Your task to perform on an android device: see creations saved in the google photos Image 0: 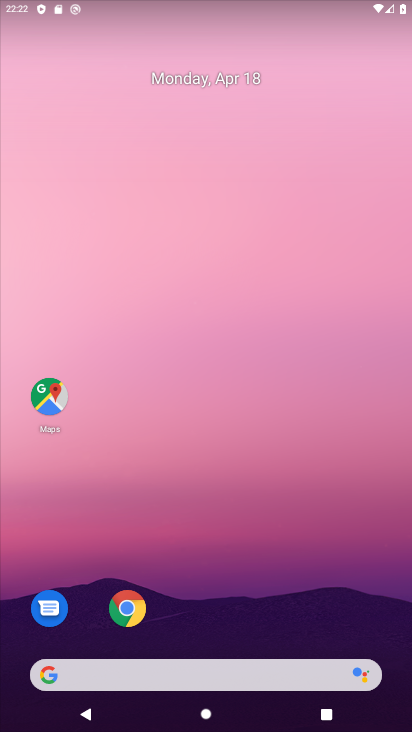
Step 0: drag from (237, 538) to (220, 44)
Your task to perform on an android device: see creations saved in the google photos Image 1: 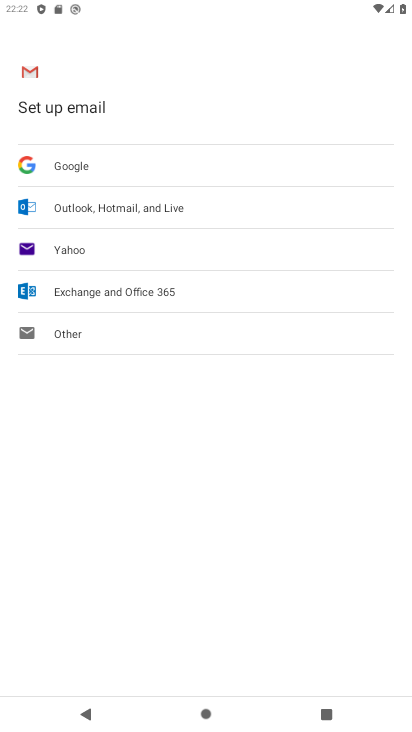
Step 1: press home button
Your task to perform on an android device: see creations saved in the google photos Image 2: 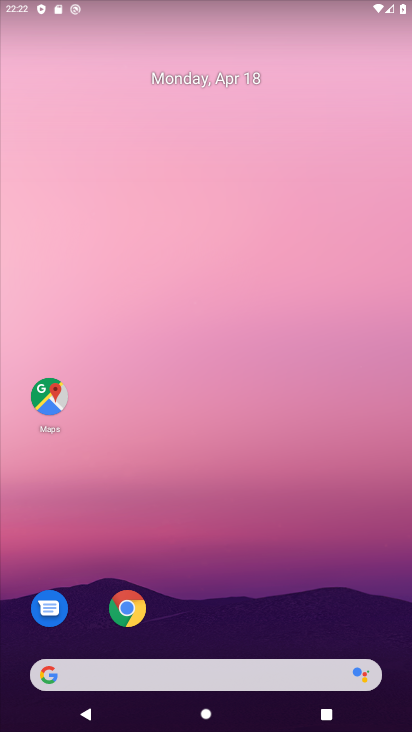
Step 2: drag from (246, 607) to (250, 260)
Your task to perform on an android device: see creations saved in the google photos Image 3: 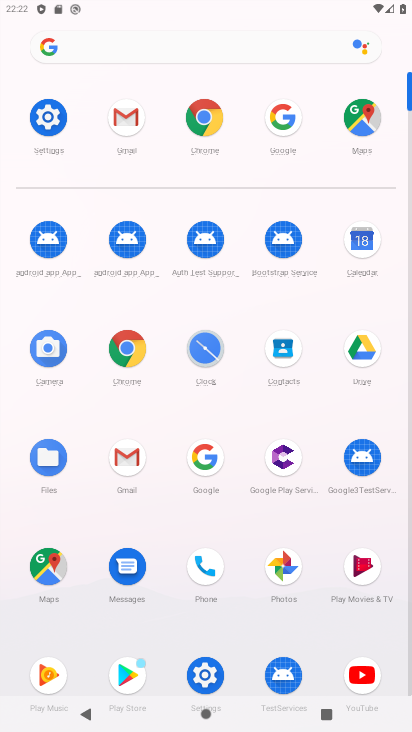
Step 3: click (286, 567)
Your task to perform on an android device: see creations saved in the google photos Image 4: 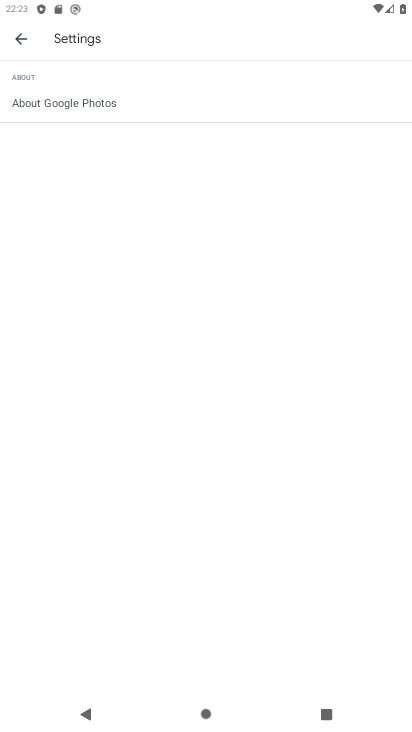
Step 4: press back button
Your task to perform on an android device: see creations saved in the google photos Image 5: 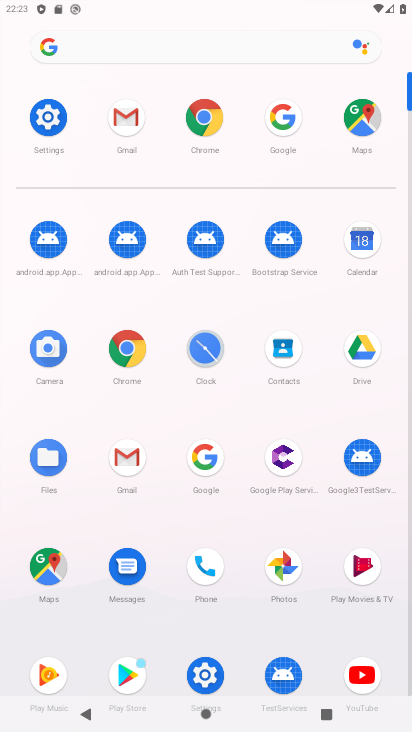
Step 5: click (277, 560)
Your task to perform on an android device: see creations saved in the google photos Image 6: 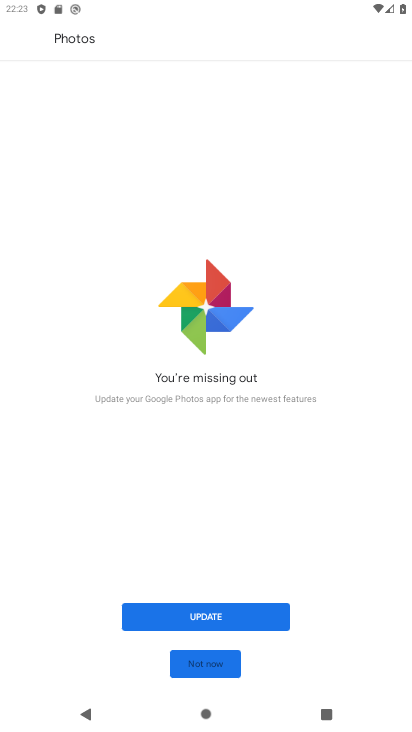
Step 6: click (201, 661)
Your task to perform on an android device: see creations saved in the google photos Image 7: 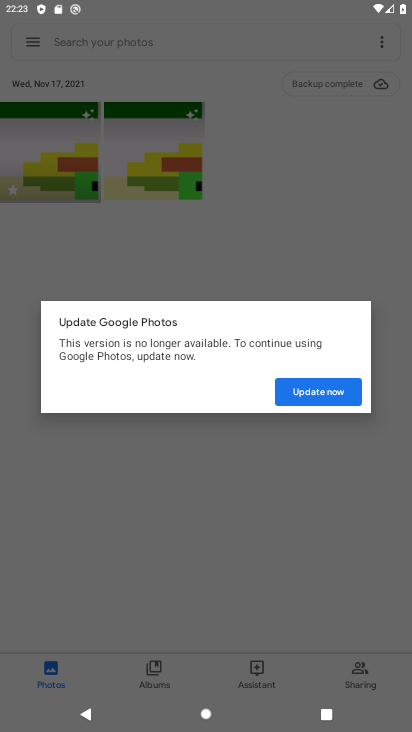
Step 7: click (300, 393)
Your task to perform on an android device: see creations saved in the google photos Image 8: 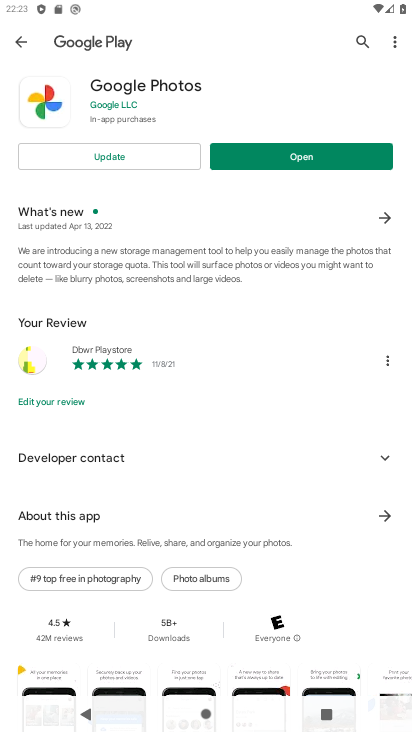
Step 8: click (223, 160)
Your task to perform on an android device: see creations saved in the google photos Image 9: 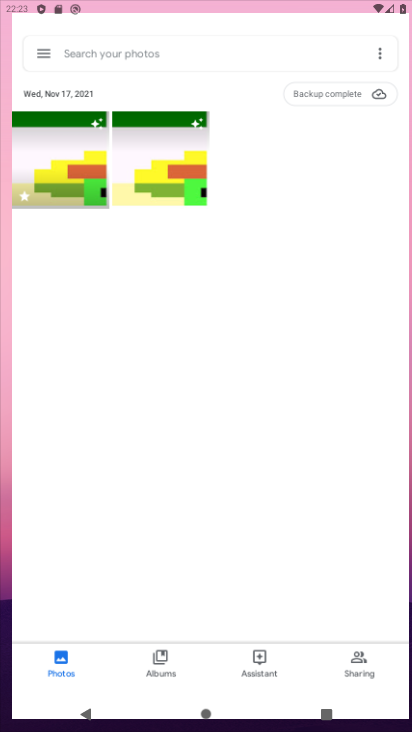
Step 9: click (289, 157)
Your task to perform on an android device: see creations saved in the google photos Image 10: 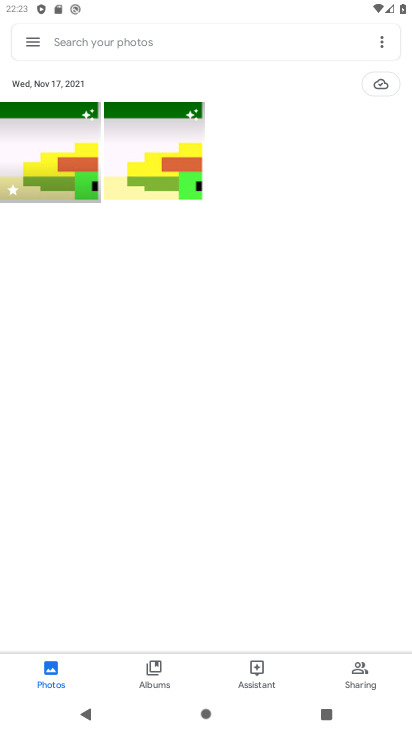
Step 10: click (180, 38)
Your task to perform on an android device: see creations saved in the google photos Image 11: 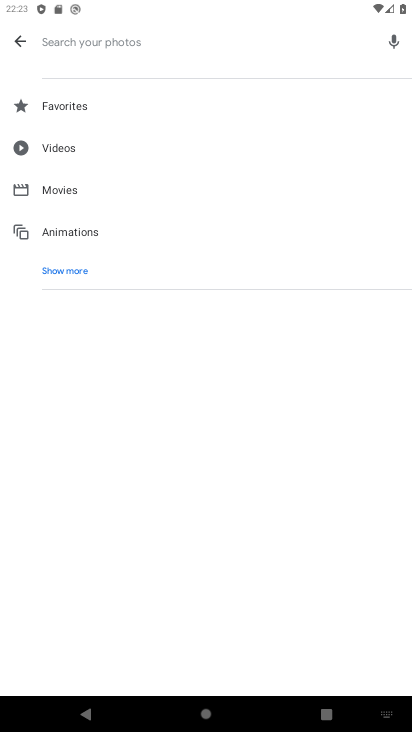
Step 11: click (73, 269)
Your task to perform on an android device: see creations saved in the google photos Image 12: 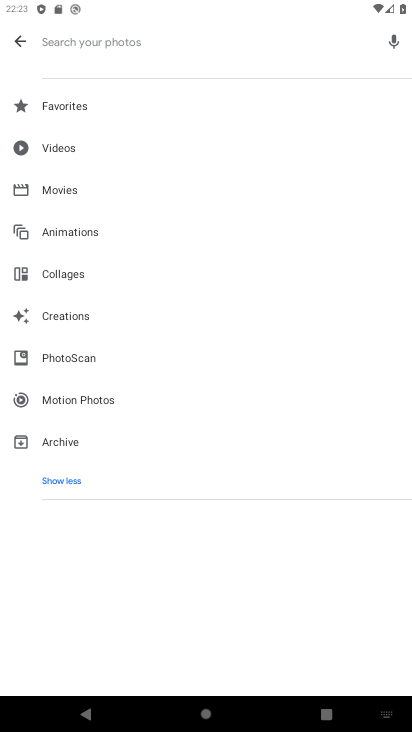
Step 12: click (55, 317)
Your task to perform on an android device: see creations saved in the google photos Image 13: 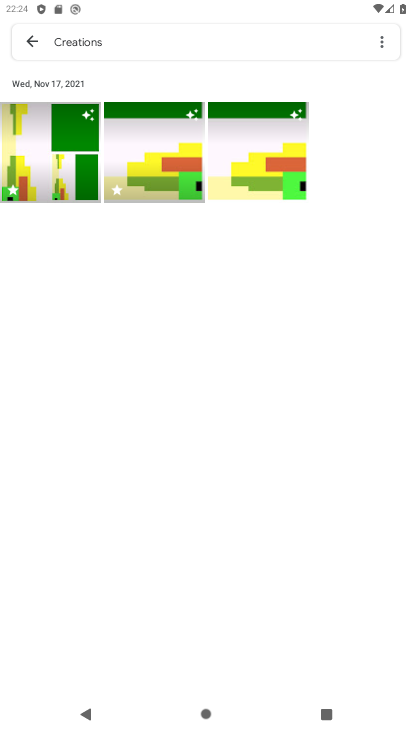
Step 13: task complete